Your task to perform on an android device: change alarm snooze length Image 0: 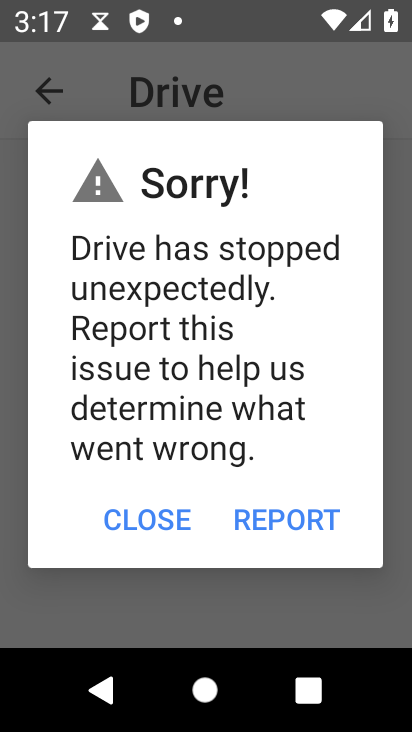
Step 0: drag from (208, 532) to (184, 5)
Your task to perform on an android device: change alarm snooze length Image 1: 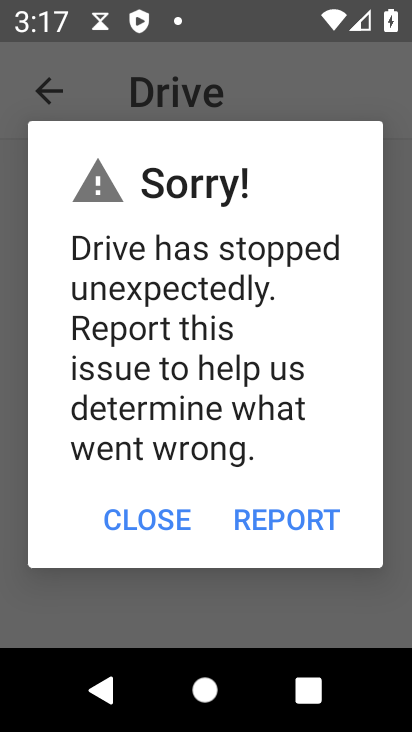
Step 1: press home button
Your task to perform on an android device: change alarm snooze length Image 2: 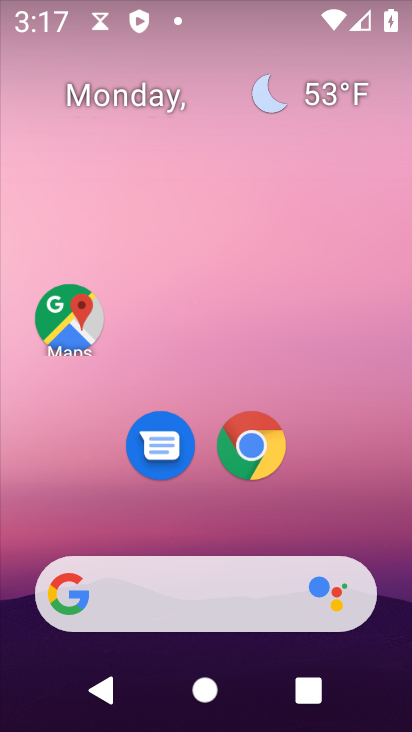
Step 2: drag from (229, 540) to (327, 2)
Your task to perform on an android device: change alarm snooze length Image 3: 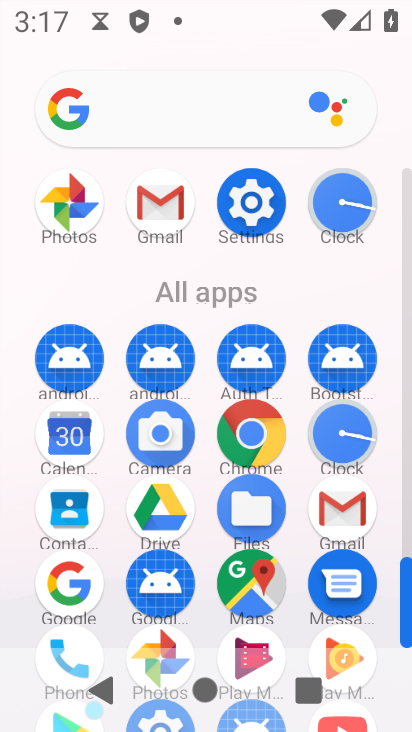
Step 3: click (346, 438)
Your task to perform on an android device: change alarm snooze length Image 4: 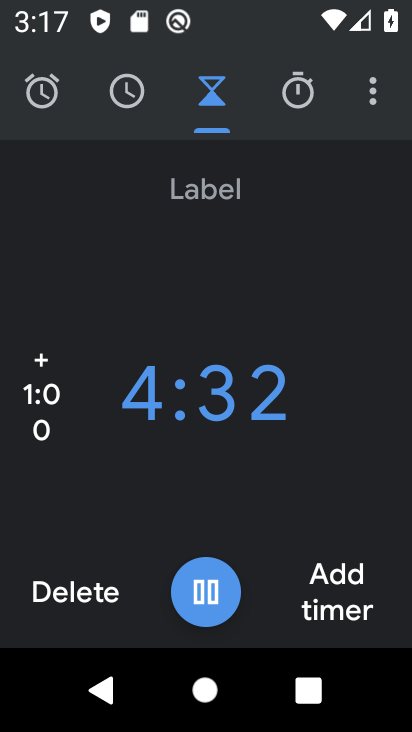
Step 4: click (375, 117)
Your task to perform on an android device: change alarm snooze length Image 5: 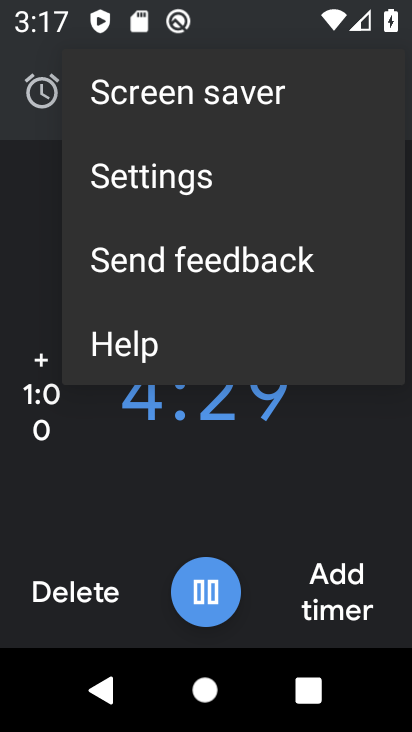
Step 5: click (151, 175)
Your task to perform on an android device: change alarm snooze length Image 6: 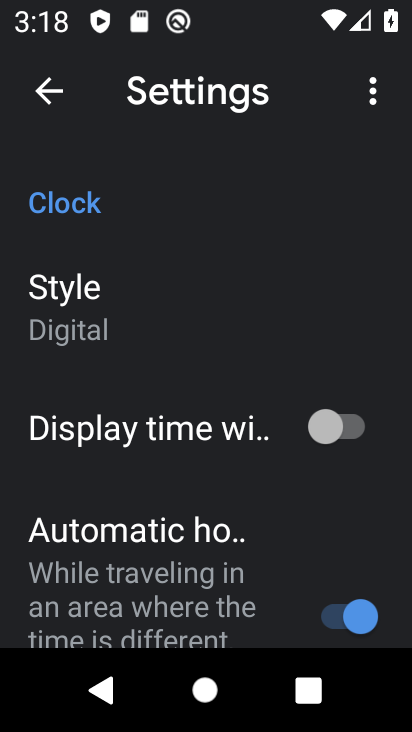
Step 6: drag from (222, 540) to (296, 80)
Your task to perform on an android device: change alarm snooze length Image 7: 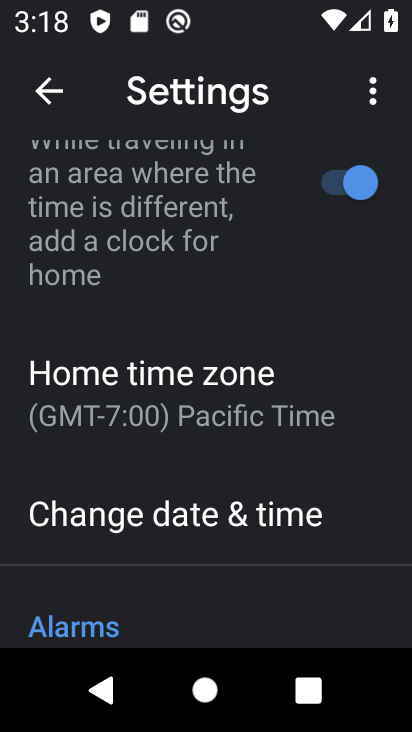
Step 7: drag from (241, 519) to (314, 95)
Your task to perform on an android device: change alarm snooze length Image 8: 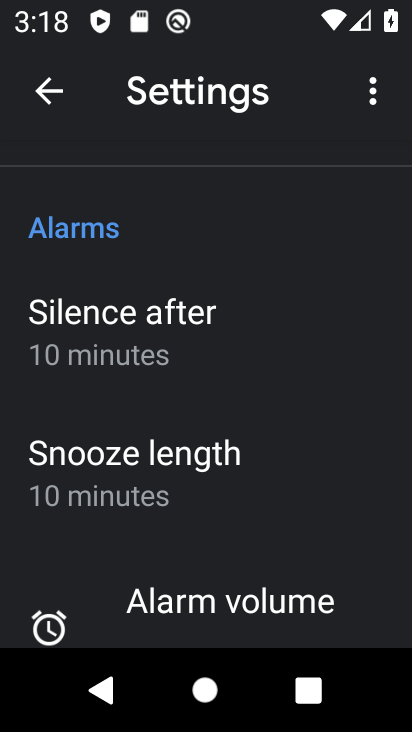
Step 8: click (166, 477)
Your task to perform on an android device: change alarm snooze length Image 9: 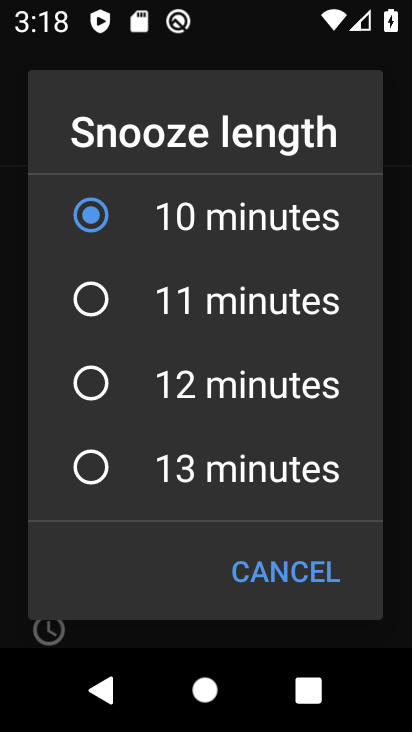
Step 9: click (164, 453)
Your task to perform on an android device: change alarm snooze length Image 10: 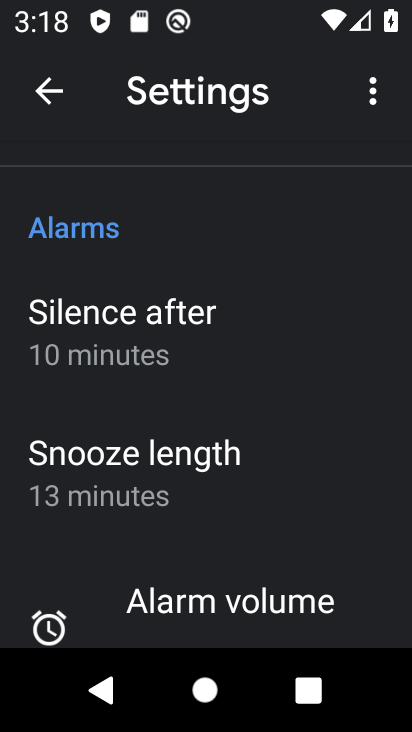
Step 10: task complete